Your task to perform on an android device: change the clock display to analog Image 0: 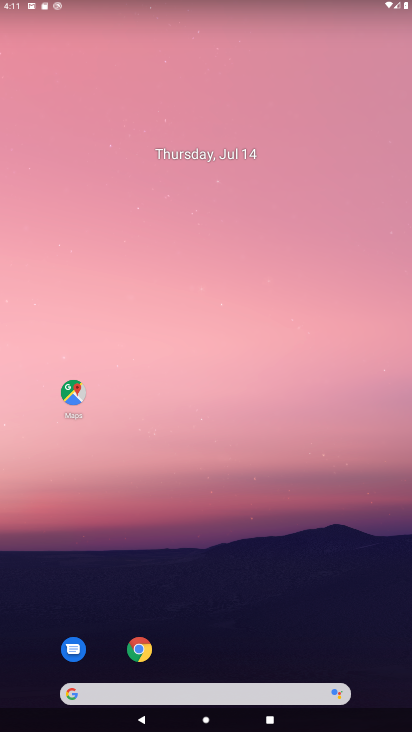
Step 0: drag from (239, 626) to (160, 2)
Your task to perform on an android device: change the clock display to analog Image 1: 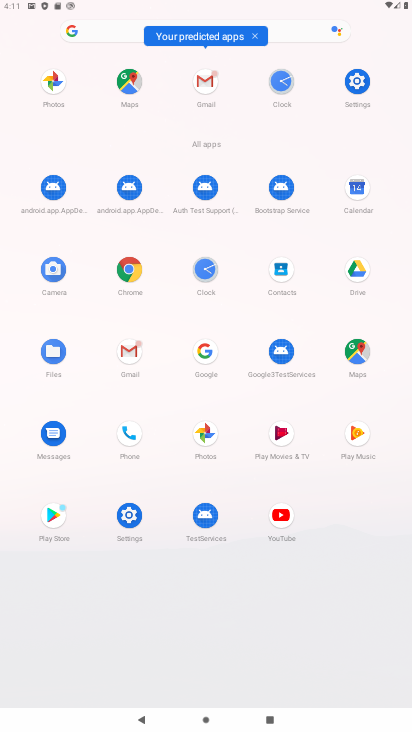
Step 1: click (208, 265)
Your task to perform on an android device: change the clock display to analog Image 2: 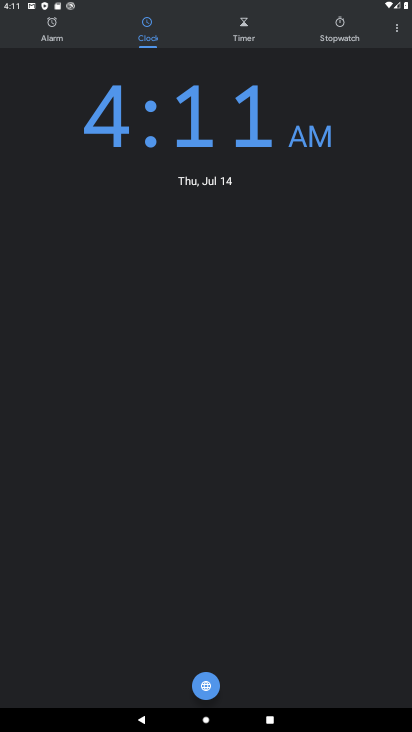
Step 2: click (400, 26)
Your task to perform on an android device: change the clock display to analog Image 3: 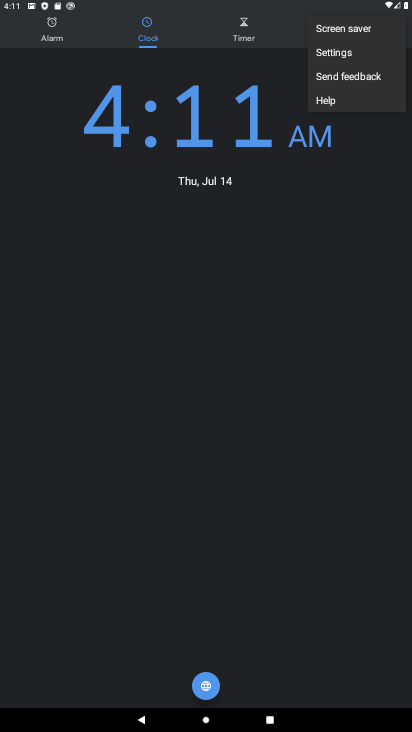
Step 3: click (335, 58)
Your task to perform on an android device: change the clock display to analog Image 4: 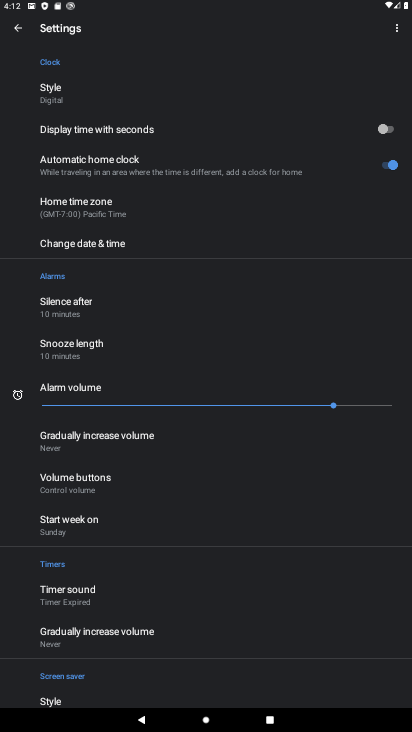
Step 4: click (44, 95)
Your task to perform on an android device: change the clock display to analog Image 5: 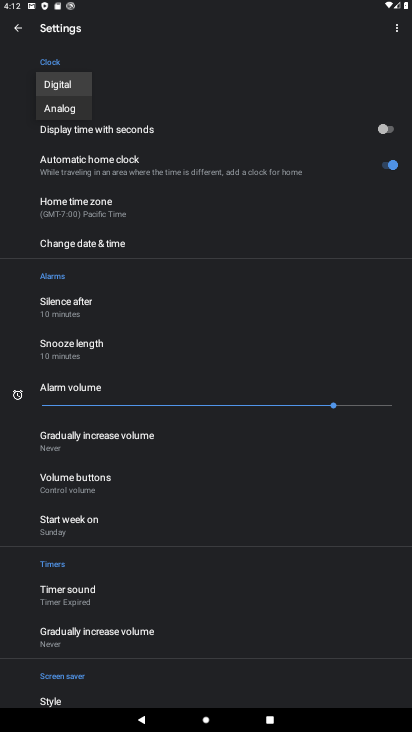
Step 5: click (59, 108)
Your task to perform on an android device: change the clock display to analog Image 6: 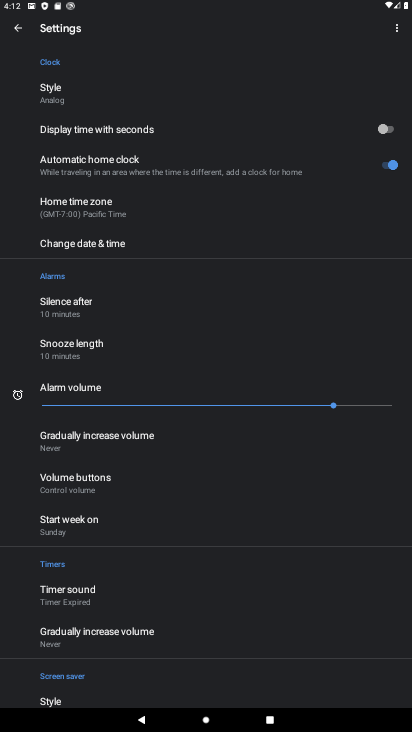
Step 6: task complete